Your task to perform on an android device: turn smart compose on in the gmail app Image 0: 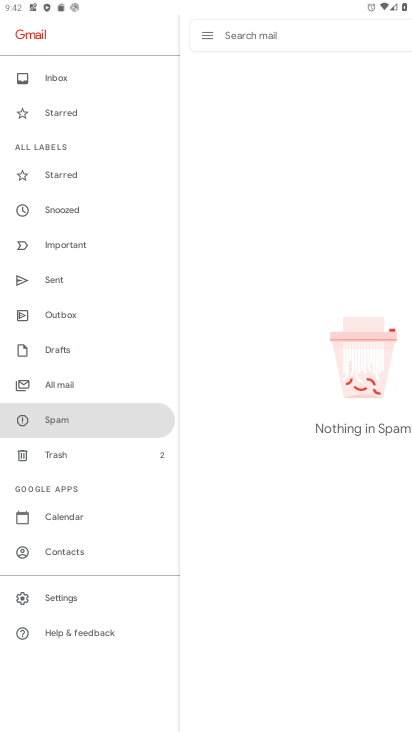
Step 0: drag from (339, 641) to (328, 424)
Your task to perform on an android device: turn smart compose on in the gmail app Image 1: 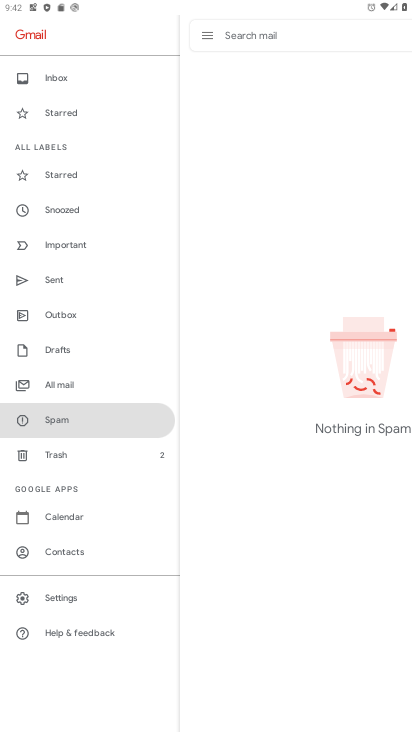
Step 1: press home button
Your task to perform on an android device: turn smart compose on in the gmail app Image 2: 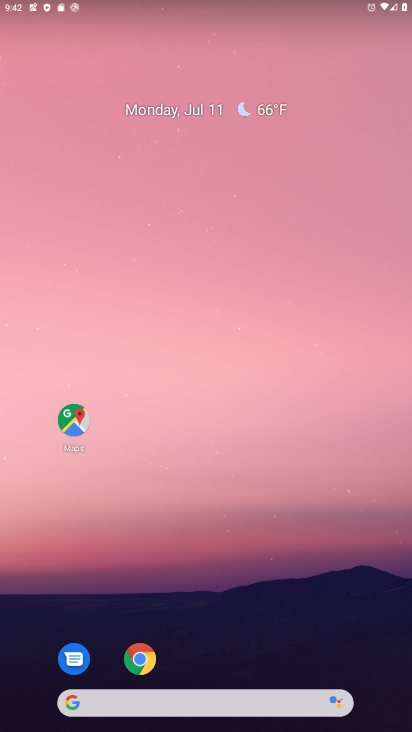
Step 2: drag from (343, 633) to (357, 236)
Your task to perform on an android device: turn smart compose on in the gmail app Image 3: 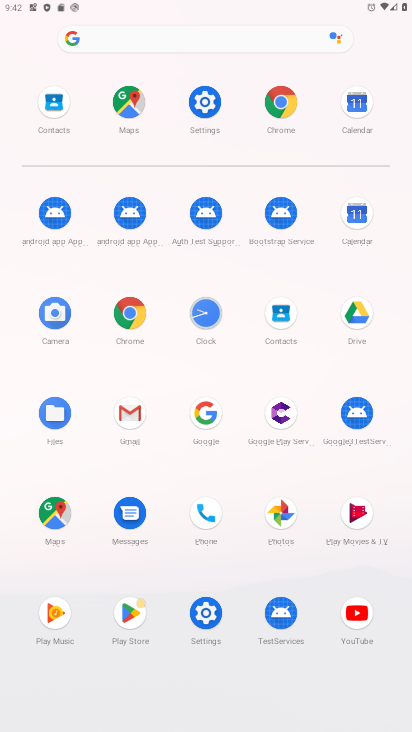
Step 3: click (132, 419)
Your task to perform on an android device: turn smart compose on in the gmail app Image 4: 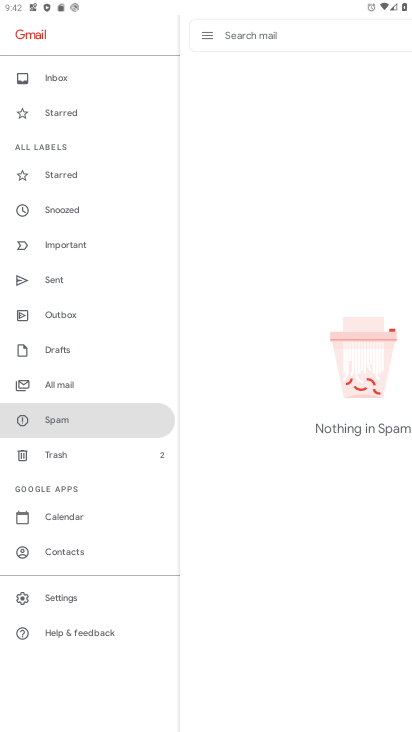
Step 4: drag from (117, 195) to (125, 387)
Your task to perform on an android device: turn smart compose on in the gmail app Image 5: 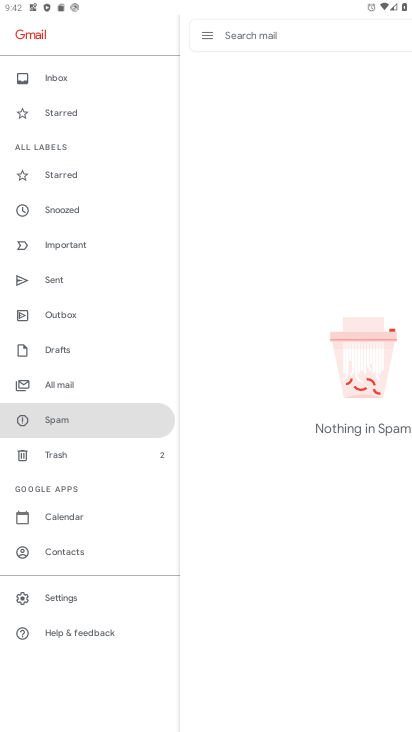
Step 5: click (95, 598)
Your task to perform on an android device: turn smart compose on in the gmail app Image 6: 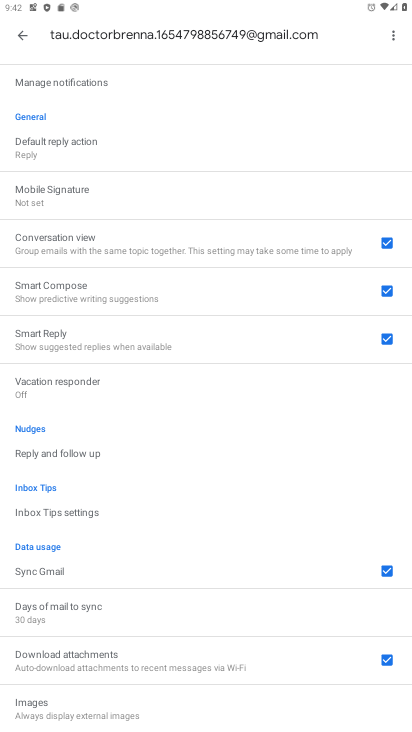
Step 6: task complete